Your task to perform on an android device: turn pop-ups on in chrome Image 0: 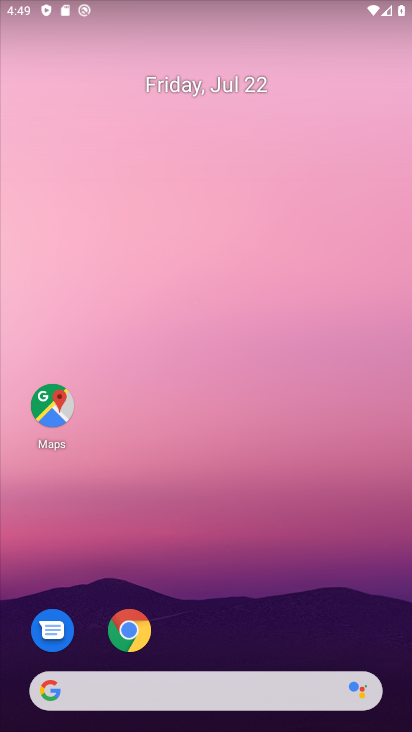
Step 0: click (113, 627)
Your task to perform on an android device: turn pop-ups on in chrome Image 1: 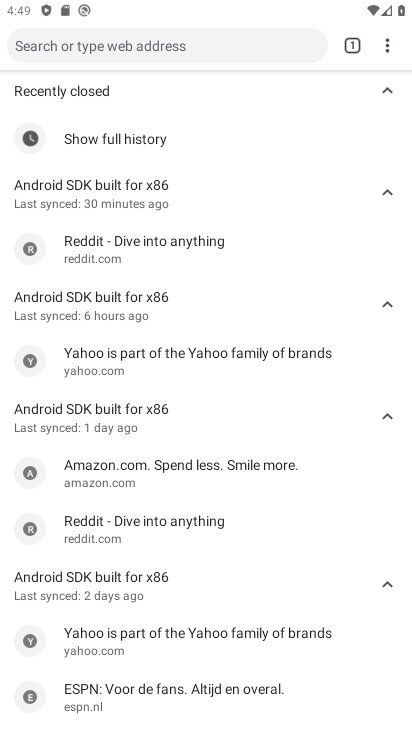
Step 1: click (384, 48)
Your task to perform on an android device: turn pop-ups on in chrome Image 2: 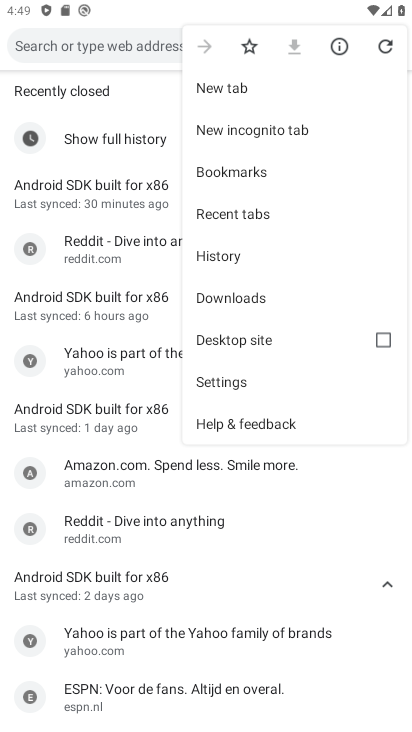
Step 2: click (221, 389)
Your task to perform on an android device: turn pop-ups on in chrome Image 3: 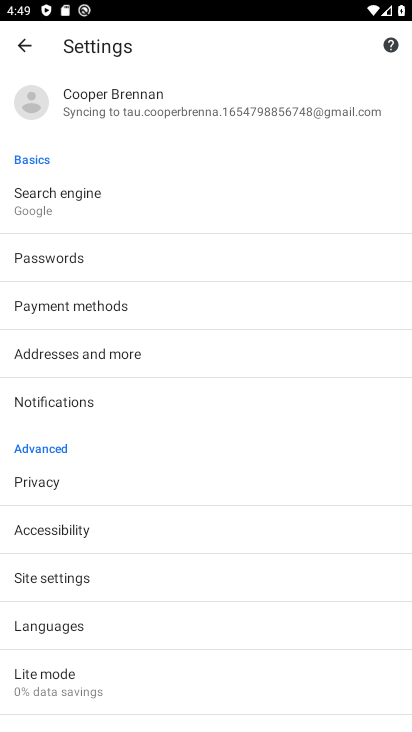
Step 3: click (41, 580)
Your task to perform on an android device: turn pop-ups on in chrome Image 4: 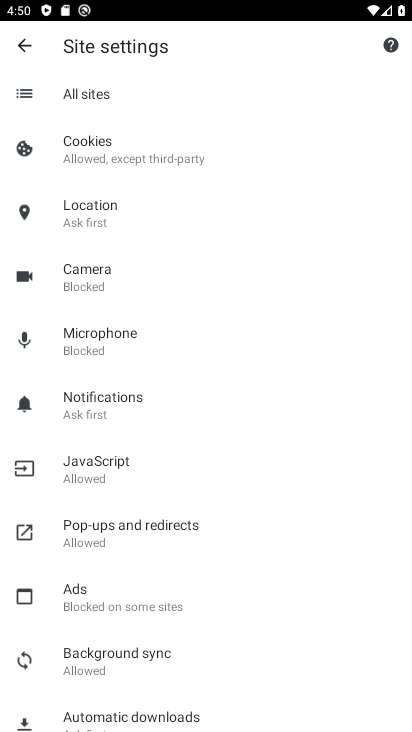
Step 4: drag from (103, 606) to (103, 474)
Your task to perform on an android device: turn pop-ups on in chrome Image 5: 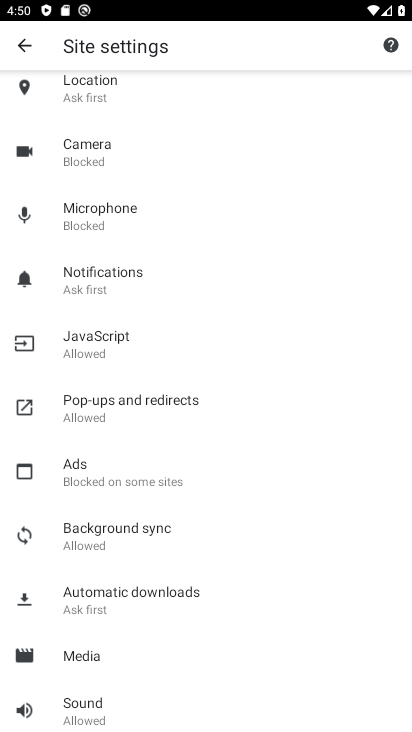
Step 5: click (77, 400)
Your task to perform on an android device: turn pop-ups on in chrome Image 6: 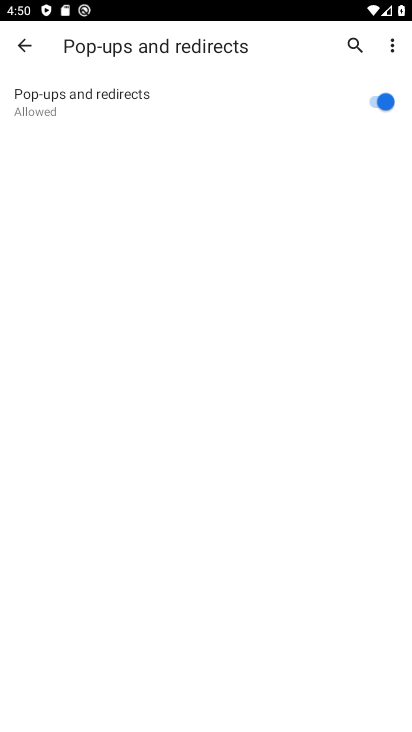
Step 6: click (373, 101)
Your task to perform on an android device: turn pop-ups on in chrome Image 7: 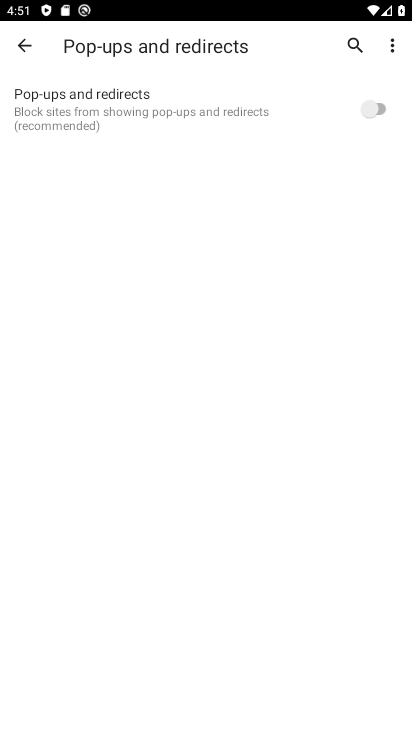
Step 7: task complete